Your task to perform on an android device: stop showing notifications on the lock screen Image 0: 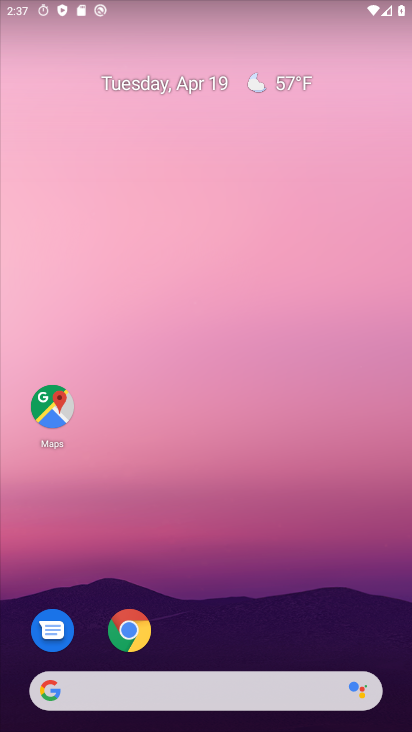
Step 0: drag from (239, 626) to (209, 99)
Your task to perform on an android device: stop showing notifications on the lock screen Image 1: 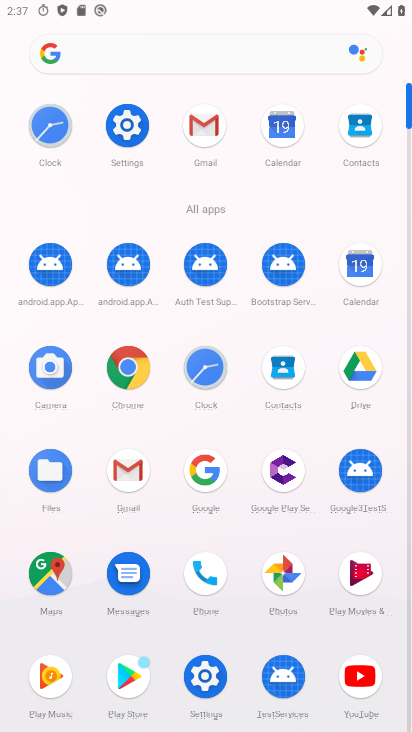
Step 1: click (126, 130)
Your task to perform on an android device: stop showing notifications on the lock screen Image 2: 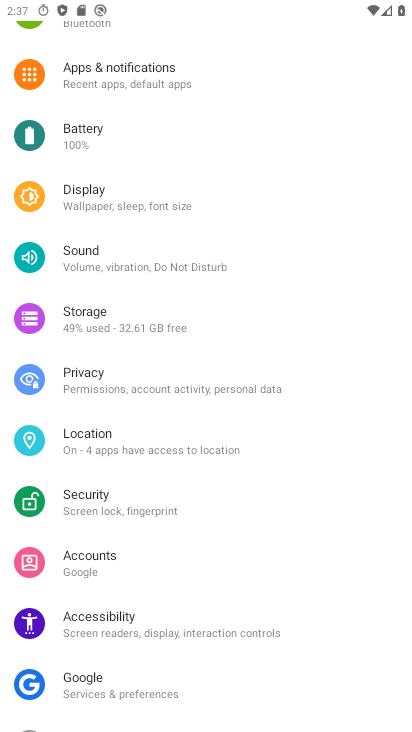
Step 2: click (153, 88)
Your task to perform on an android device: stop showing notifications on the lock screen Image 3: 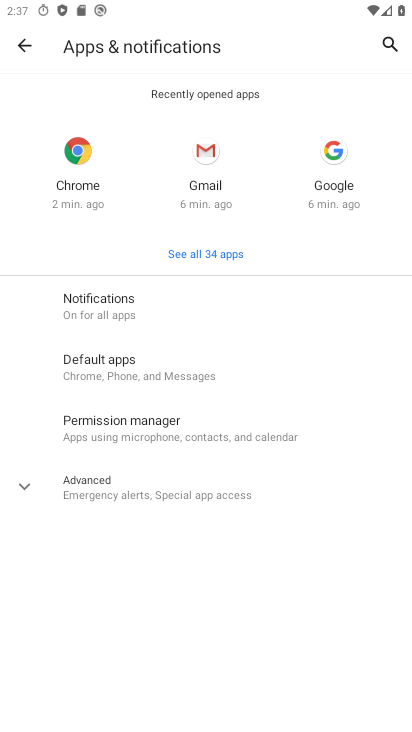
Step 3: click (162, 312)
Your task to perform on an android device: stop showing notifications on the lock screen Image 4: 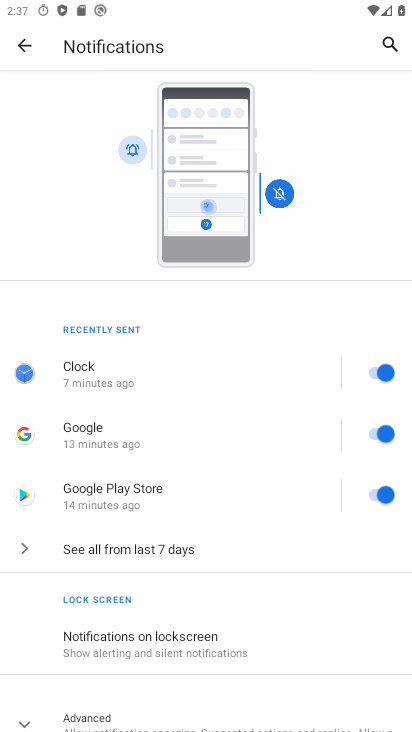
Step 4: click (181, 640)
Your task to perform on an android device: stop showing notifications on the lock screen Image 5: 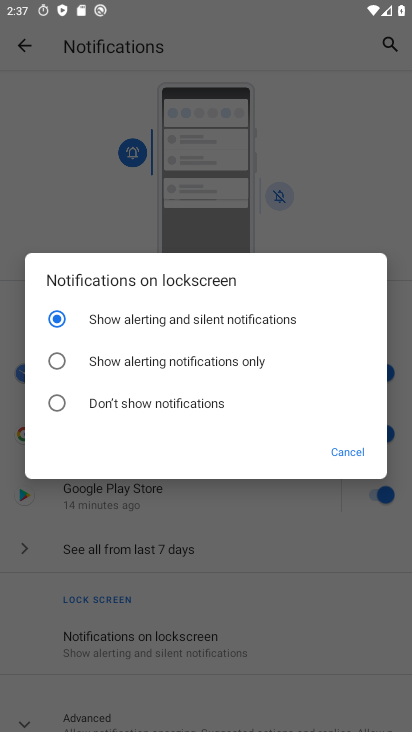
Step 5: click (153, 402)
Your task to perform on an android device: stop showing notifications on the lock screen Image 6: 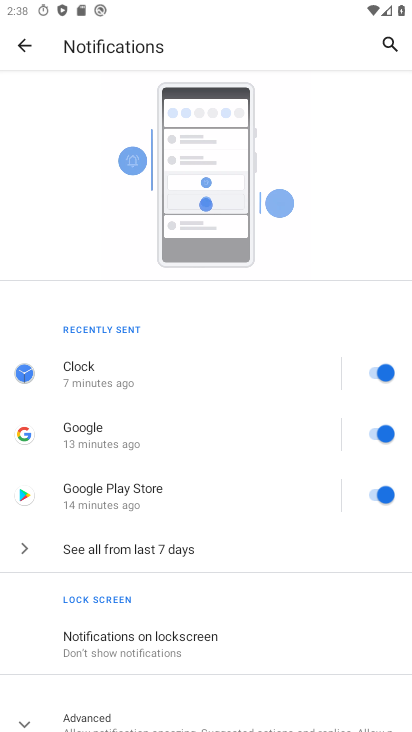
Step 6: task complete